Your task to perform on an android device: choose inbox layout in the gmail app Image 0: 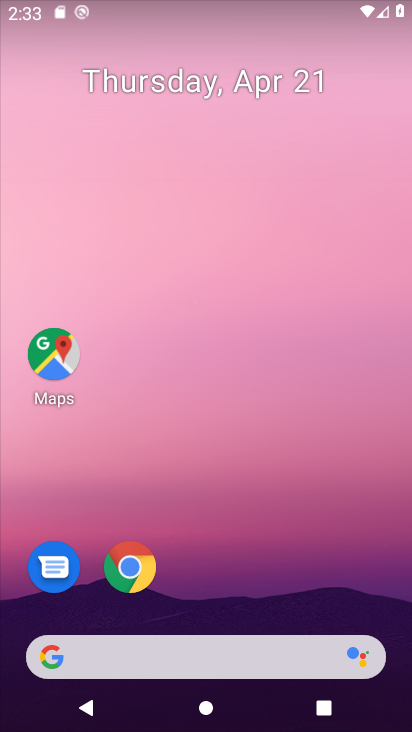
Step 0: drag from (280, 549) to (218, 53)
Your task to perform on an android device: choose inbox layout in the gmail app Image 1: 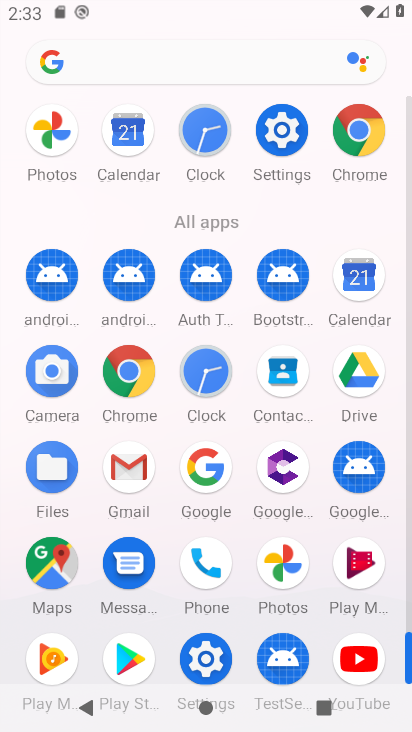
Step 1: drag from (9, 579) to (13, 289)
Your task to perform on an android device: choose inbox layout in the gmail app Image 2: 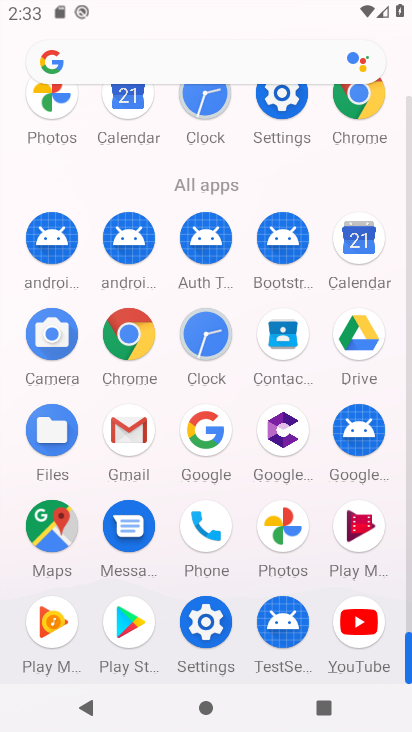
Step 2: click (129, 425)
Your task to perform on an android device: choose inbox layout in the gmail app Image 3: 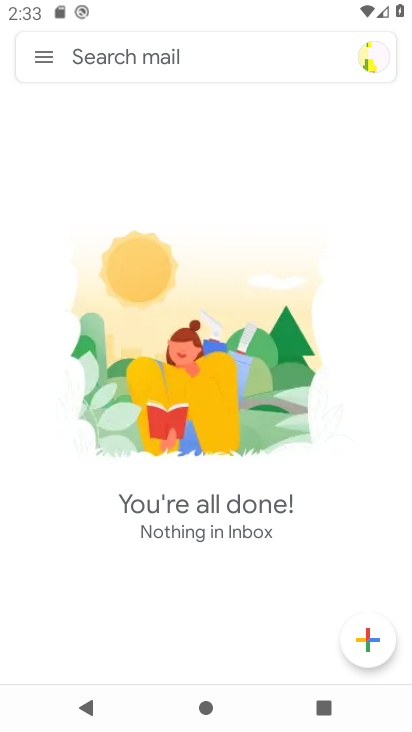
Step 3: click (48, 50)
Your task to perform on an android device: choose inbox layout in the gmail app Image 4: 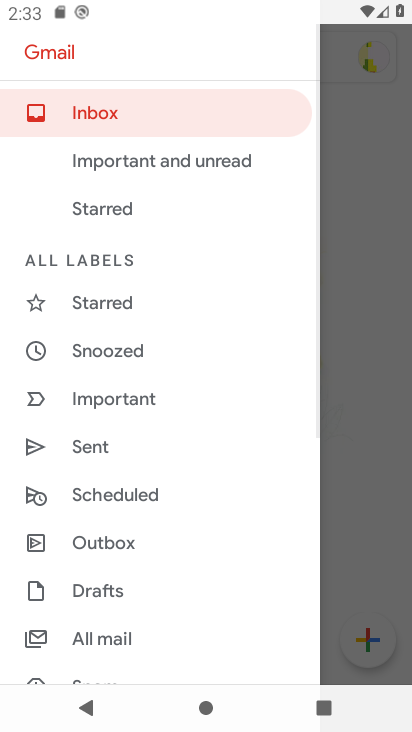
Step 4: drag from (204, 498) to (211, 173)
Your task to perform on an android device: choose inbox layout in the gmail app Image 5: 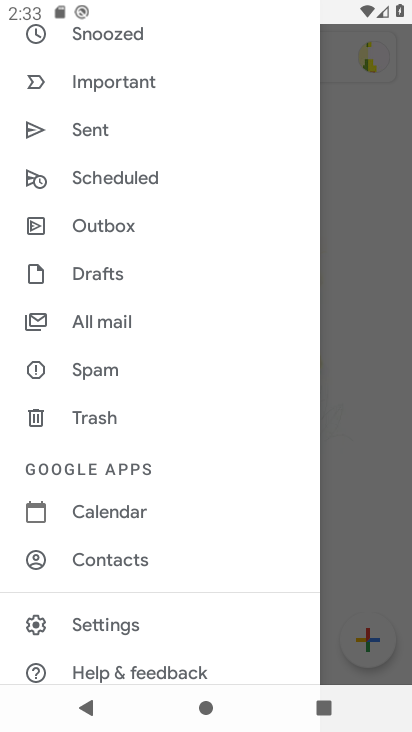
Step 5: drag from (202, 558) to (198, 290)
Your task to perform on an android device: choose inbox layout in the gmail app Image 6: 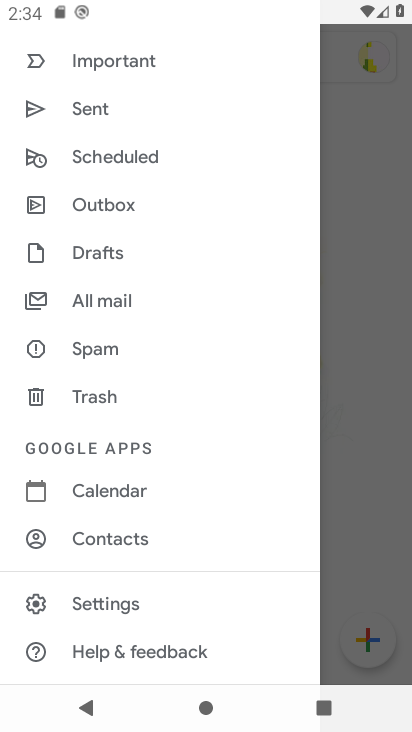
Step 6: drag from (193, 140) to (198, 532)
Your task to perform on an android device: choose inbox layout in the gmail app Image 7: 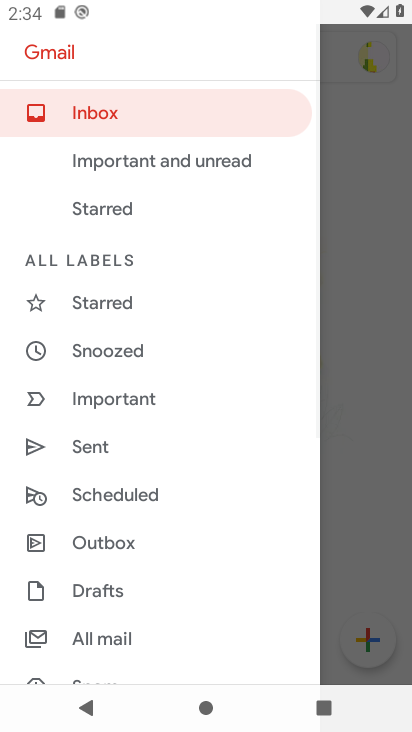
Step 7: drag from (201, 527) to (188, 145)
Your task to perform on an android device: choose inbox layout in the gmail app Image 8: 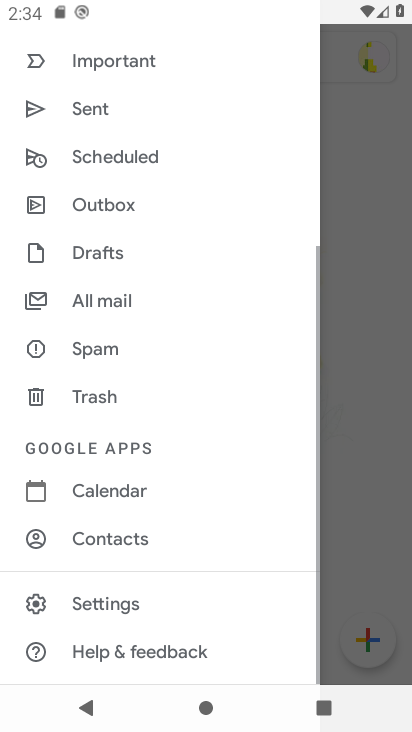
Step 8: drag from (192, 522) to (180, 146)
Your task to perform on an android device: choose inbox layout in the gmail app Image 9: 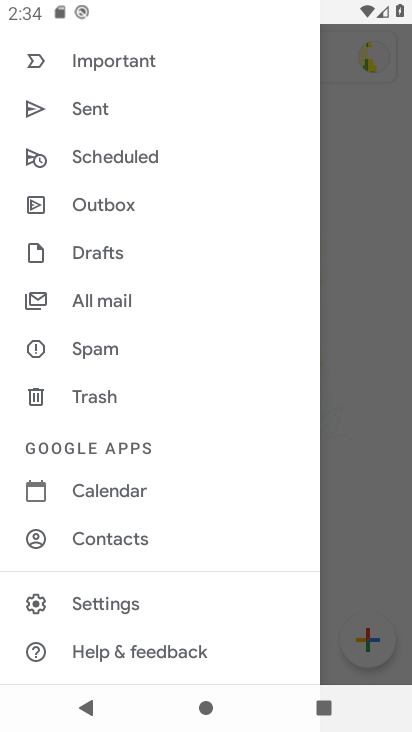
Step 9: click (115, 601)
Your task to perform on an android device: choose inbox layout in the gmail app Image 10: 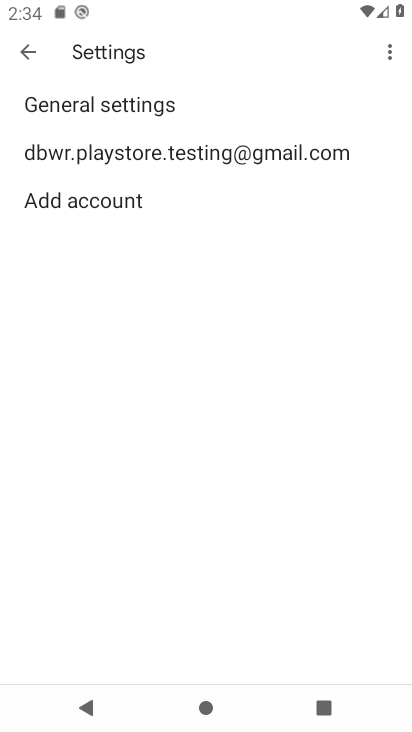
Step 10: click (166, 154)
Your task to perform on an android device: choose inbox layout in the gmail app Image 11: 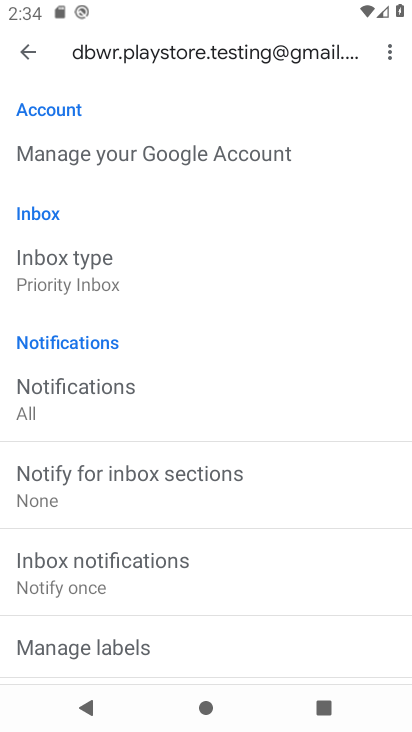
Step 11: click (117, 285)
Your task to perform on an android device: choose inbox layout in the gmail app Image 12: 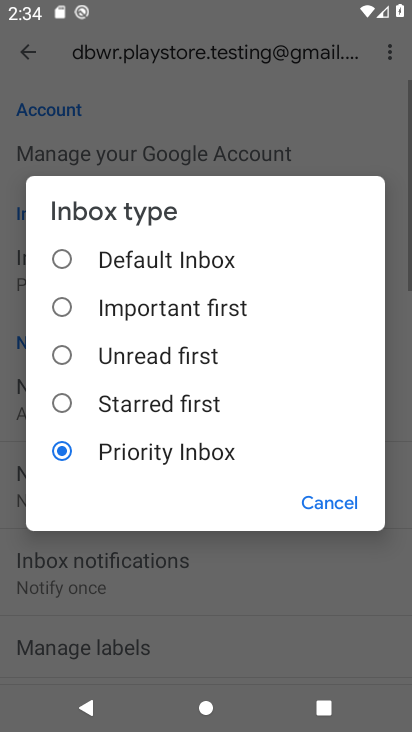
Step 12: click (143, 251)
Your task to perform on an android device: choose inbox layout in the gmail app Image 13: 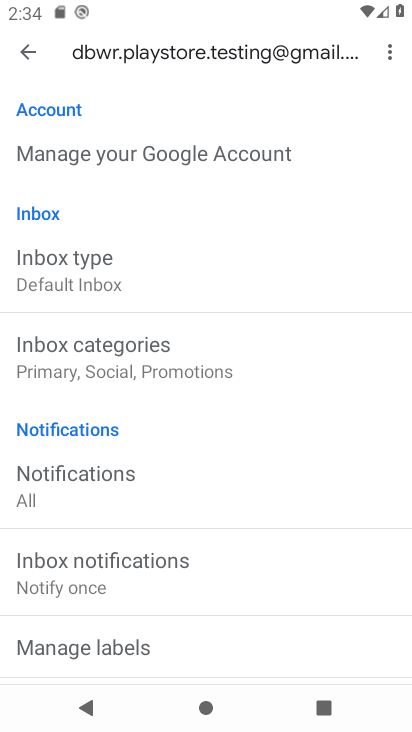
Step 13: task complete